Your task to perform on an android device: stop showing notifications on the lock screen Image 0: 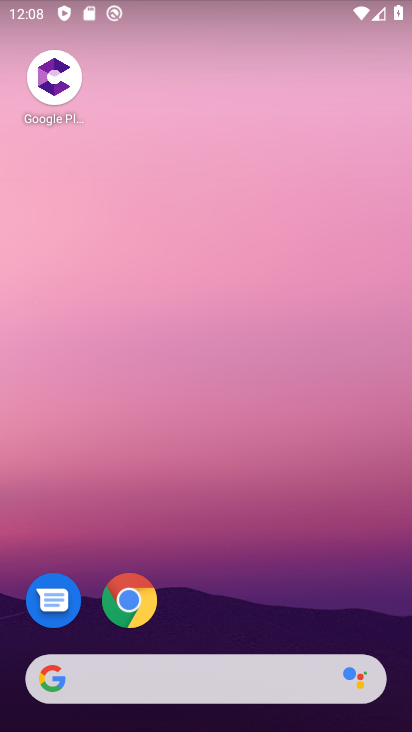
Step 0: drag from (271, 628) to (398, 94)
Your task to perform on an android device: stop showing notifications on the lock screen Image 1: 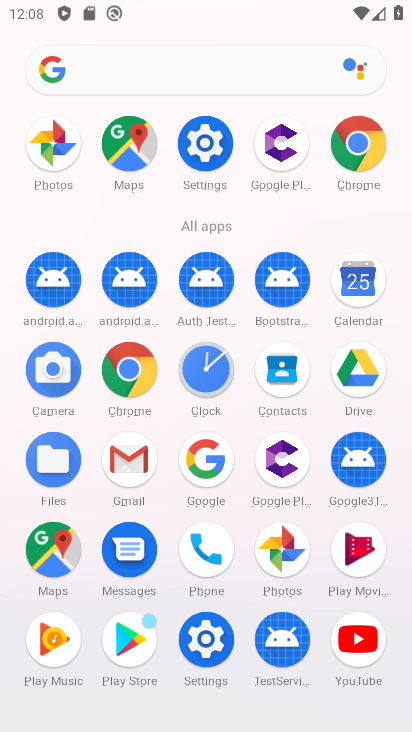
Step 1: click (197, 146)
Your task to perform on an android device: stop showing notifications on the lock screen Image 2: 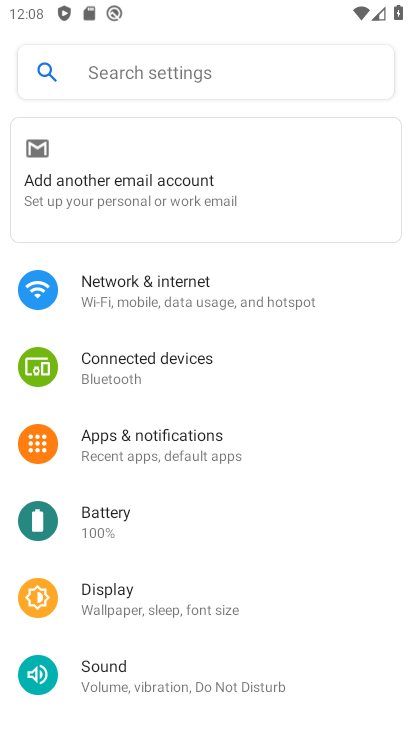
Step 2: click (171, 444)
Your task to perform on an android device: stop showing notifications on the lock screen Image 3: 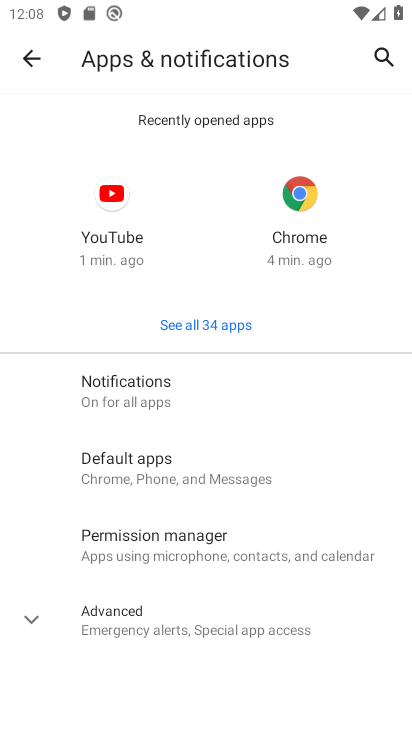
Step 3: click (165, 402)
Your task to perform on an android device: stop showing notifications on the lock screen Image 4: 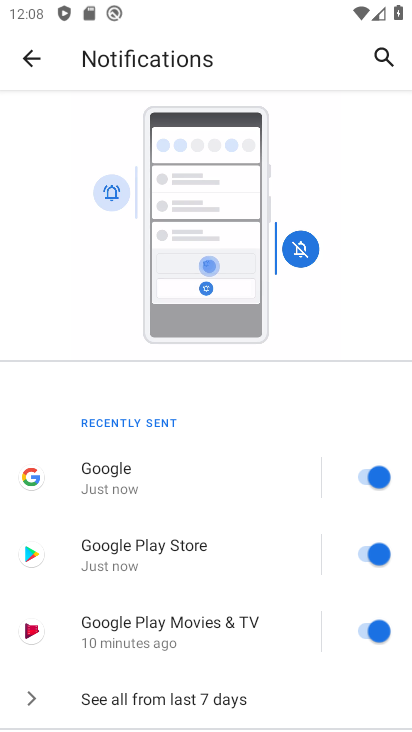
Step 4: drag from (166, 605) to (274, 174)
Your task to perform on an android device: stop showing notifications on the lock screen Image 5: 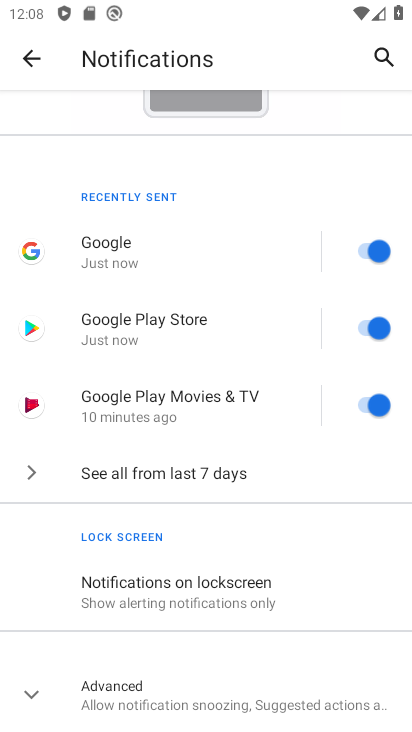
Step 5: click (155, 590)
Your task to perform on an android device: stop showing notifications on the lock screen Image 6: 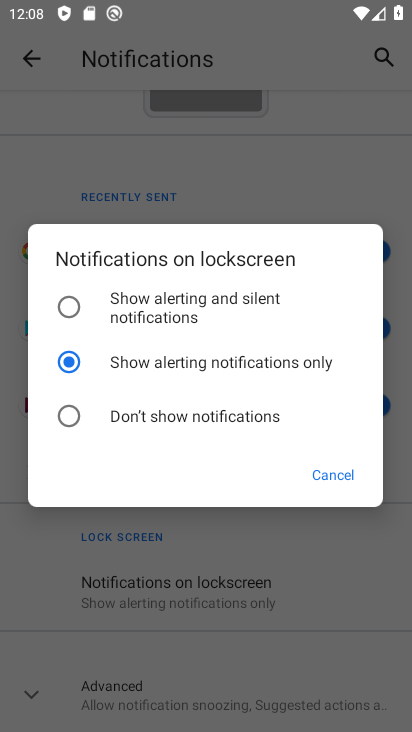
Step 6: click (168, 408)
Your task to perform on an android device: stop showing notifications on the lock screen Image 7: 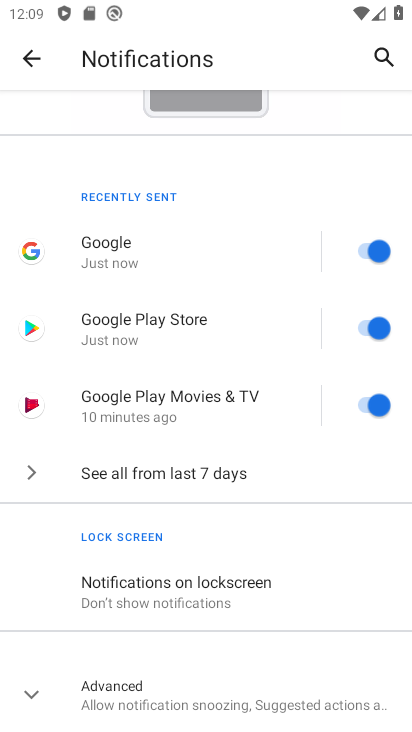
Step 7: task complete